Your task to perform on an android device: change the upload size in google photos Image 0: 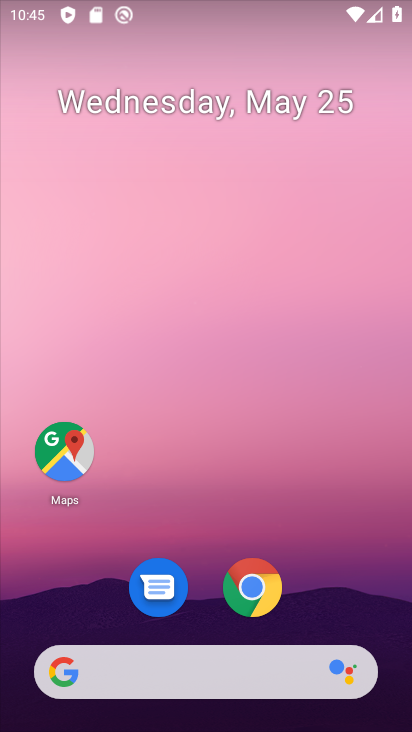
Step 0: drag from (338, 602) to (264, 7)
Your task to perform on an android device: change the upload size in google photos Image 1: 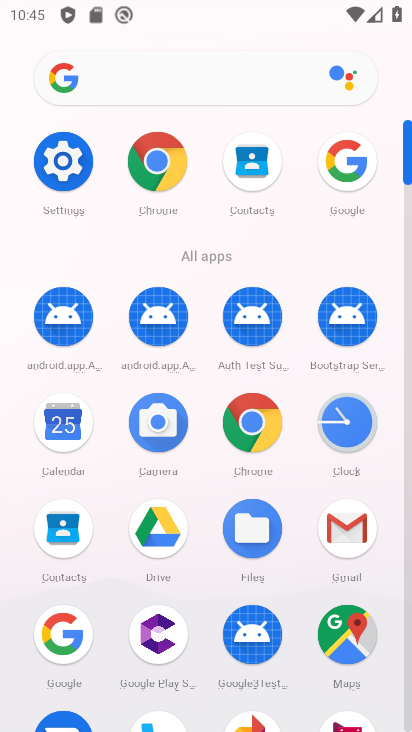
Step 1: drag from (7, 552) to (10, 195)
Your task to perform on an android device: change the upload size in google photos Image 2: 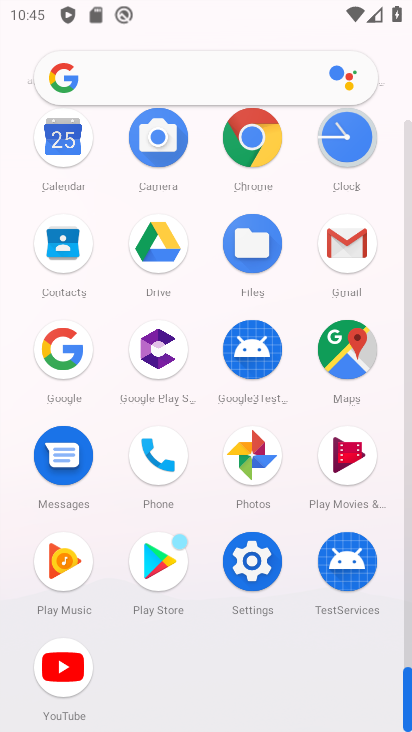
Step 2: click (251, 457)
Your task to perform on an android device: change the upload size in google photos Image 3: 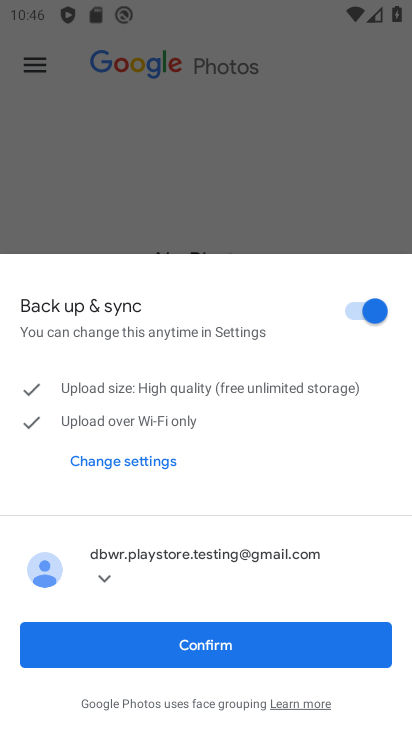
Step 3: click (212, 640)
Your task to perform on an android device: change the upload size in google photos Image 4: 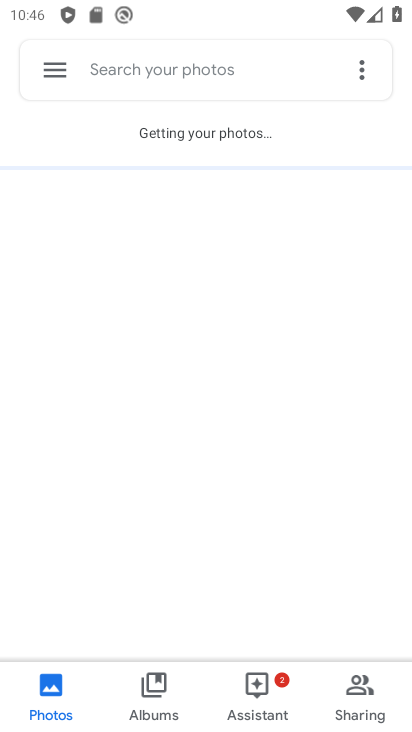
Step 4: click (51, 67)
Your task to perform on an android device: change the upload size in google photos Image 5: 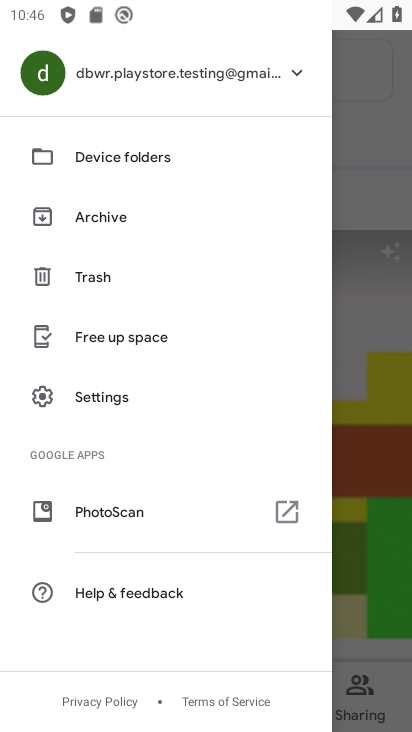
Step 5: click (112, 402)
Your task to perform on an android device: change the upload size in google photos Image 6: 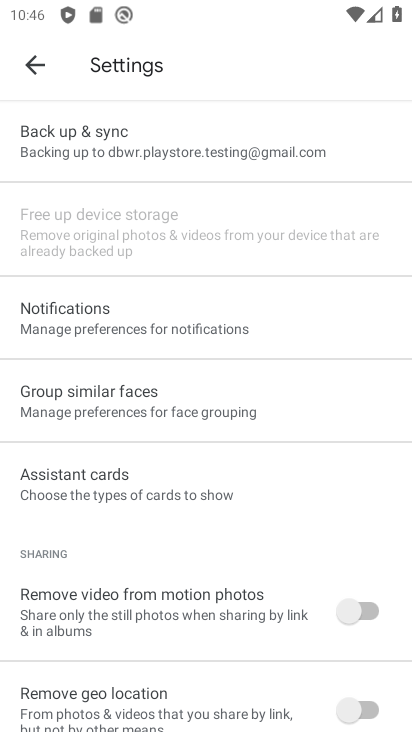
Step 6: drag from (196, 505) to (196, 185)
Your task to perform on an android device: change the upload size in google photos Image 7: 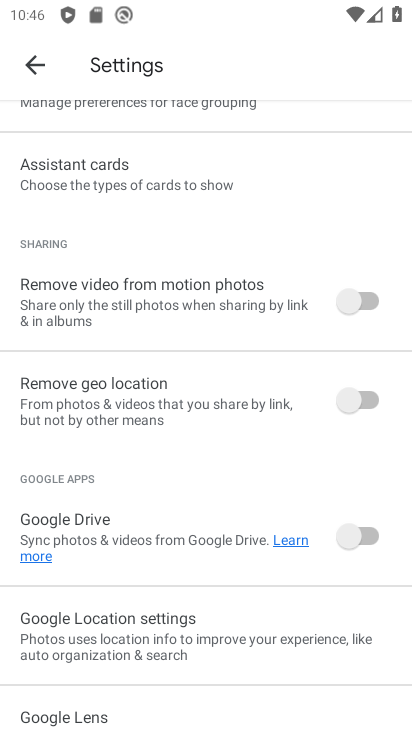
Step 7: drag from (195, 588) to (205, 186)
Your task to perform on an android device: change the upload size in google photos Image 8: 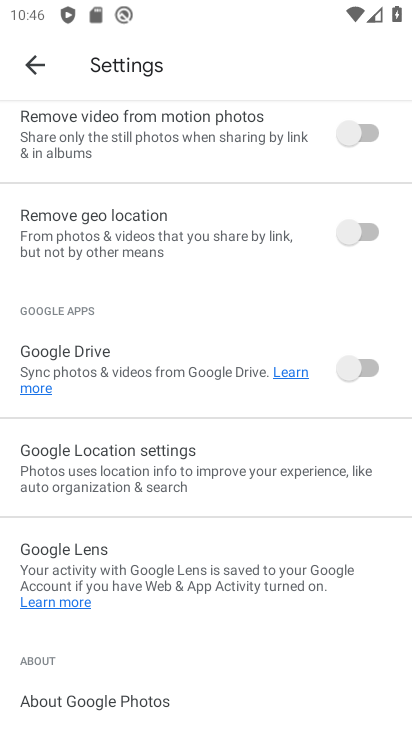
Step 8: drag from (210, 182) to (210, 647)
Your task to perform on an android device: change the upload size in google photos Image 9: 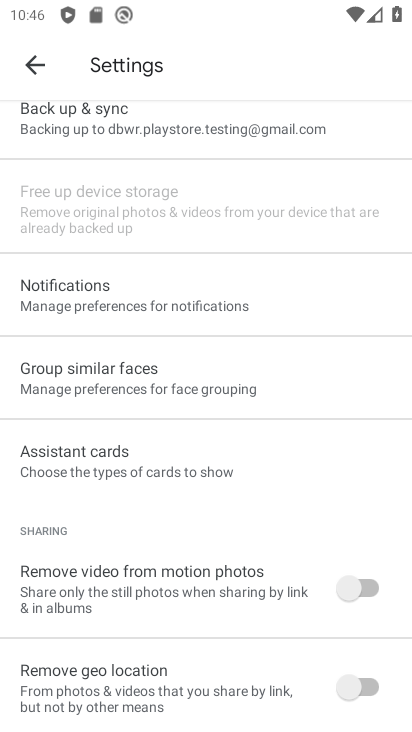
Step 9: click (150, 134)
Your task to perform on an android device: change the upload size in google photos Image 10: 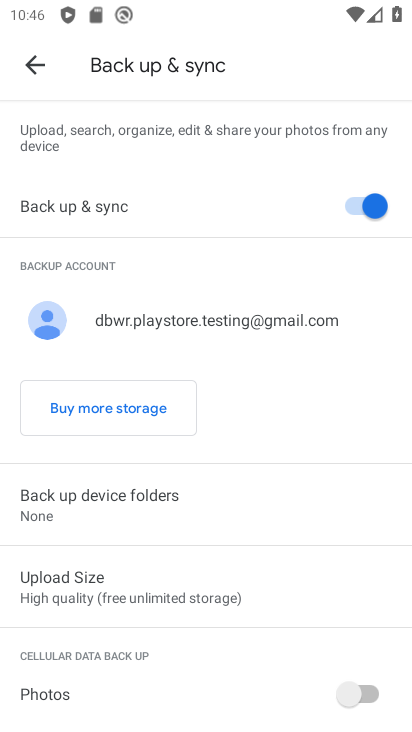
Step 10: click (219, 575)
Your task to perform on an android device: change the upload size in google photos Image 11: 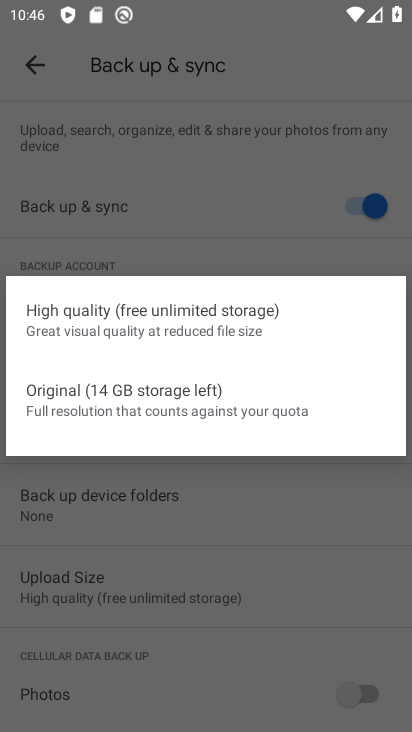
Step 11: click (194, 397)
Your task to perform on an android device: change the upload size in google photos Image 12: 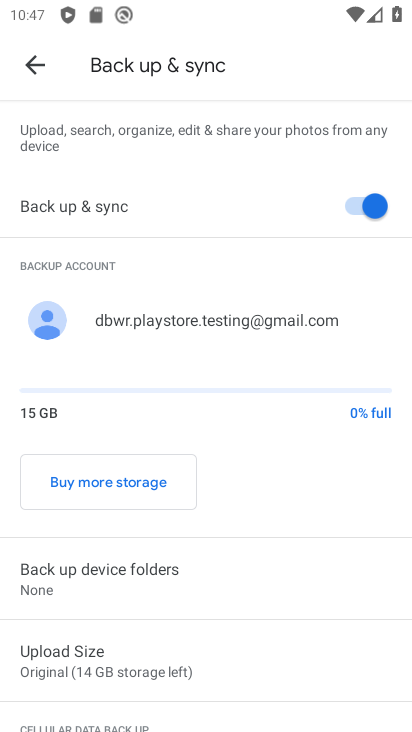
Step 12: task complete